Your task to perform on an android device: turn off location Image 0: 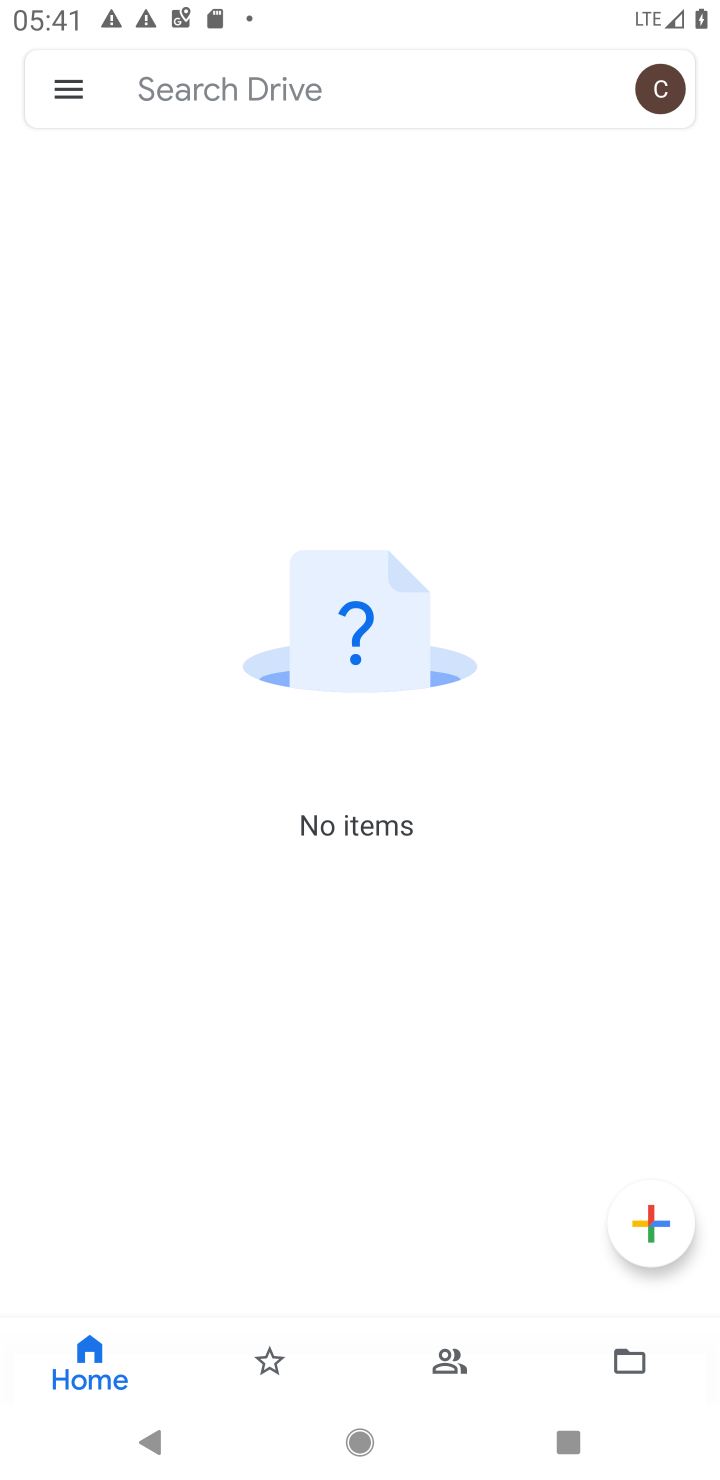
Step 0: press home button
Your task to perform on an android device: turn off location Image 1: 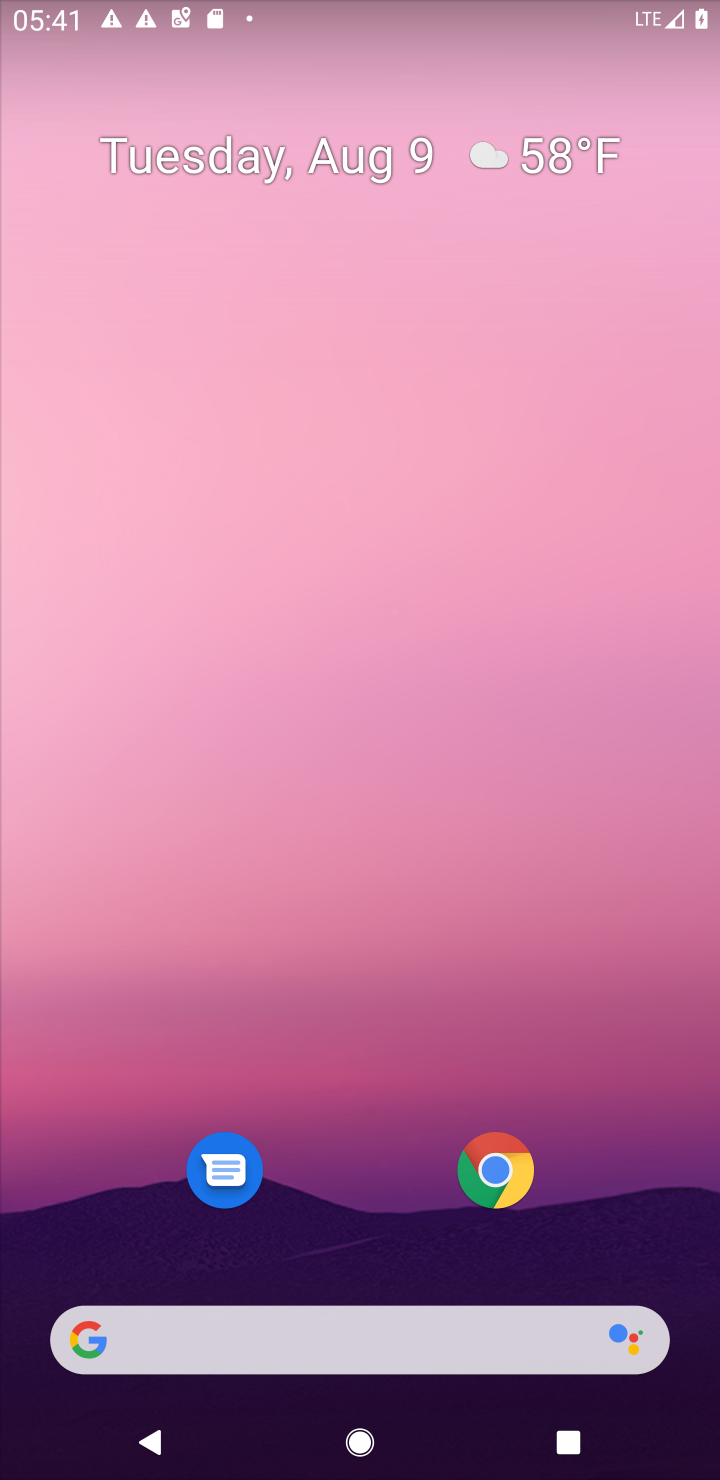
Step 1: drag from (406, 1165) to (577, 99)
Your task to perform on an android device: turn off location Image 2: 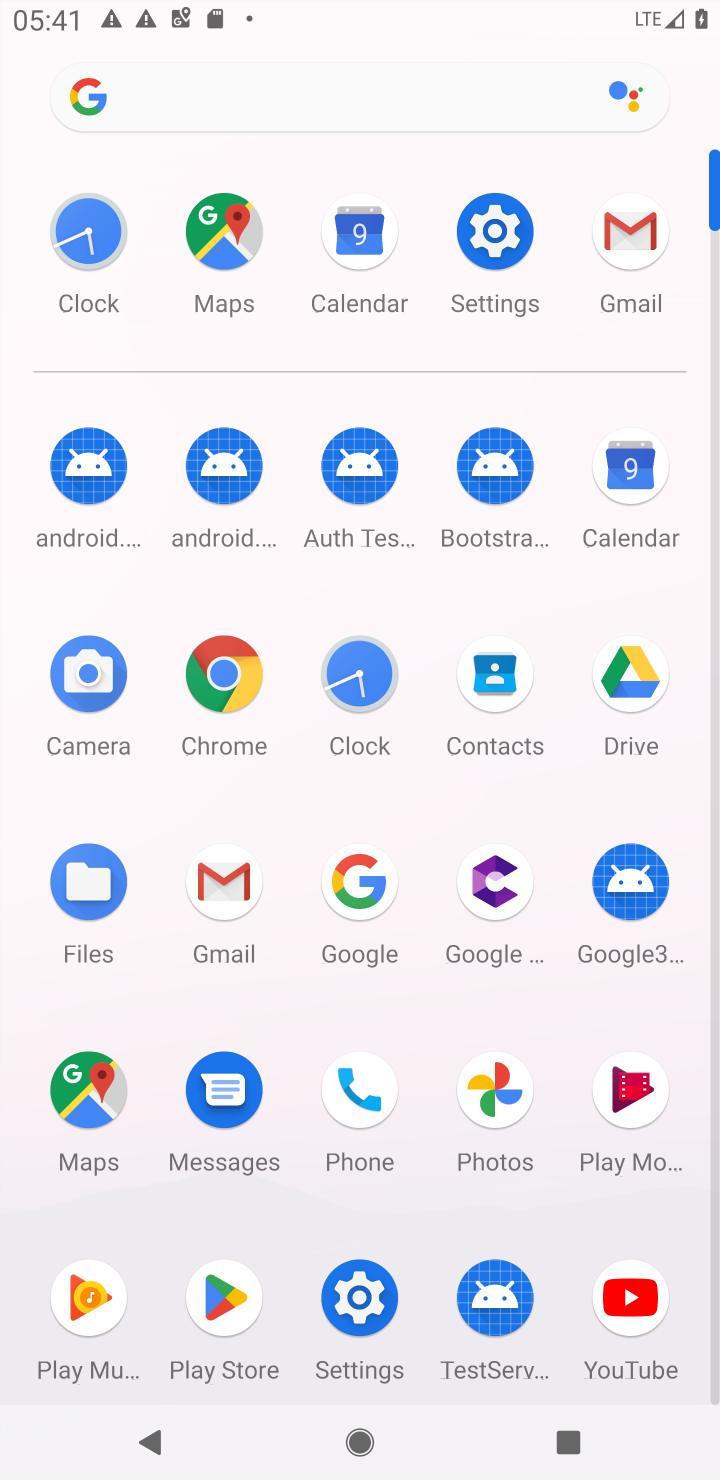
Step 2: click (349, 1322)
Your task to perform on an android device: turn off location Image 3: 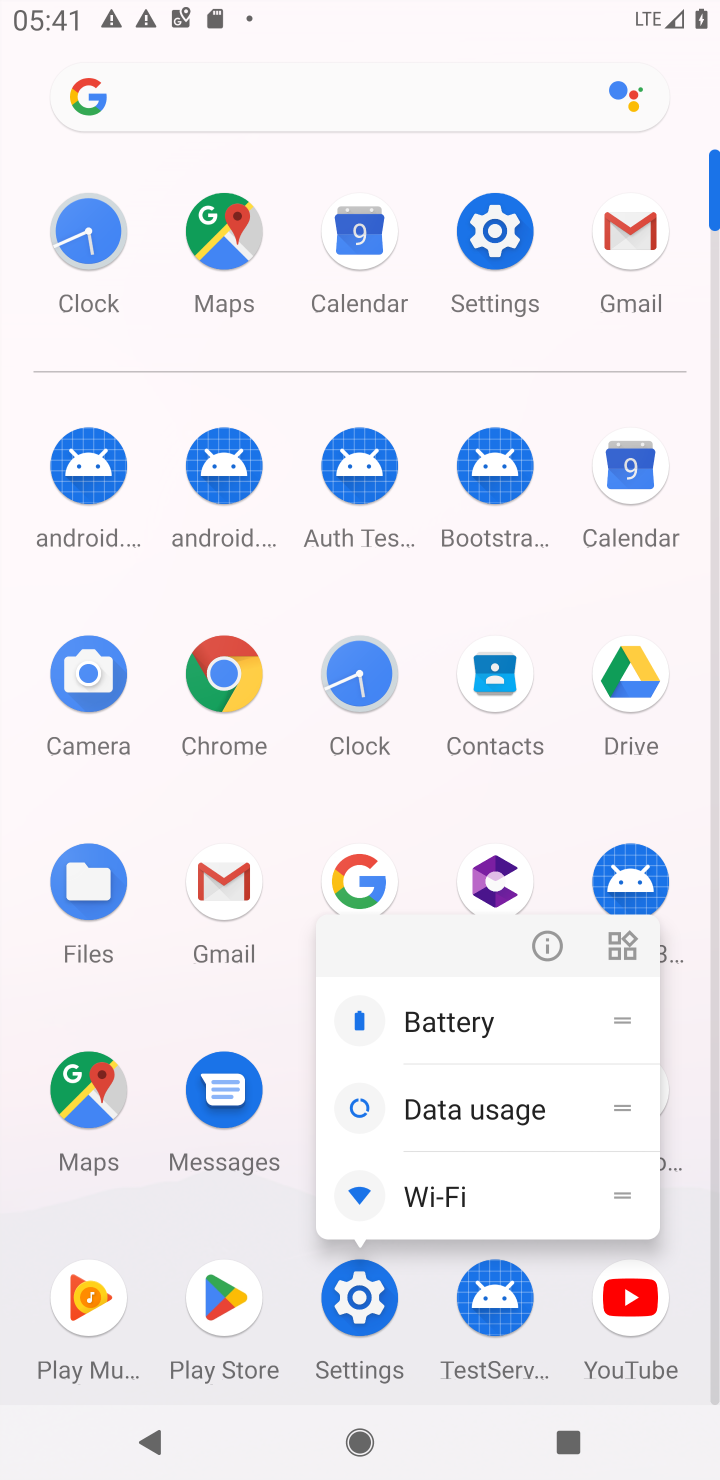
Step 3: click (349, 1322)
Your task to perform on an android device: turn off location Image 4: 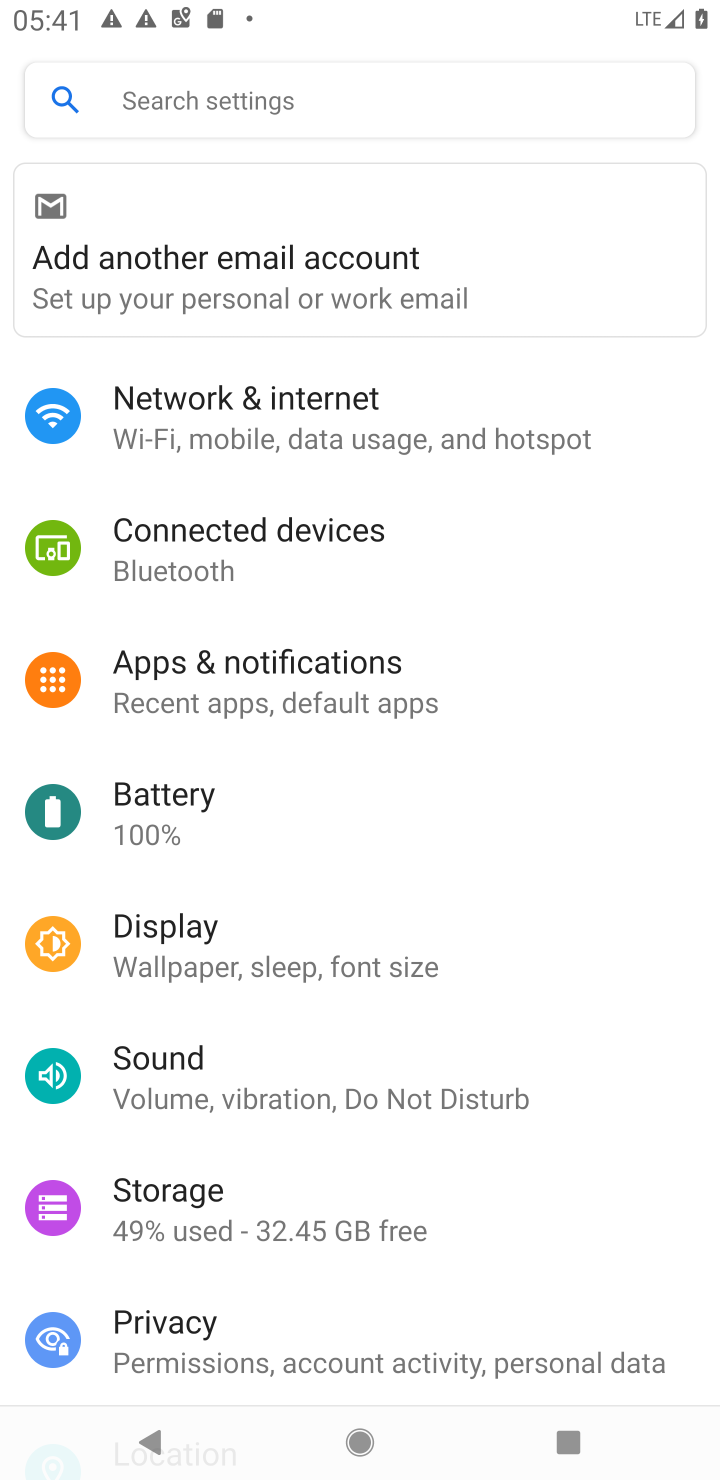
Step 4: drag from (524, 1249) to (621, 80)
Your task to perform on an android device: turn off location Image 5: 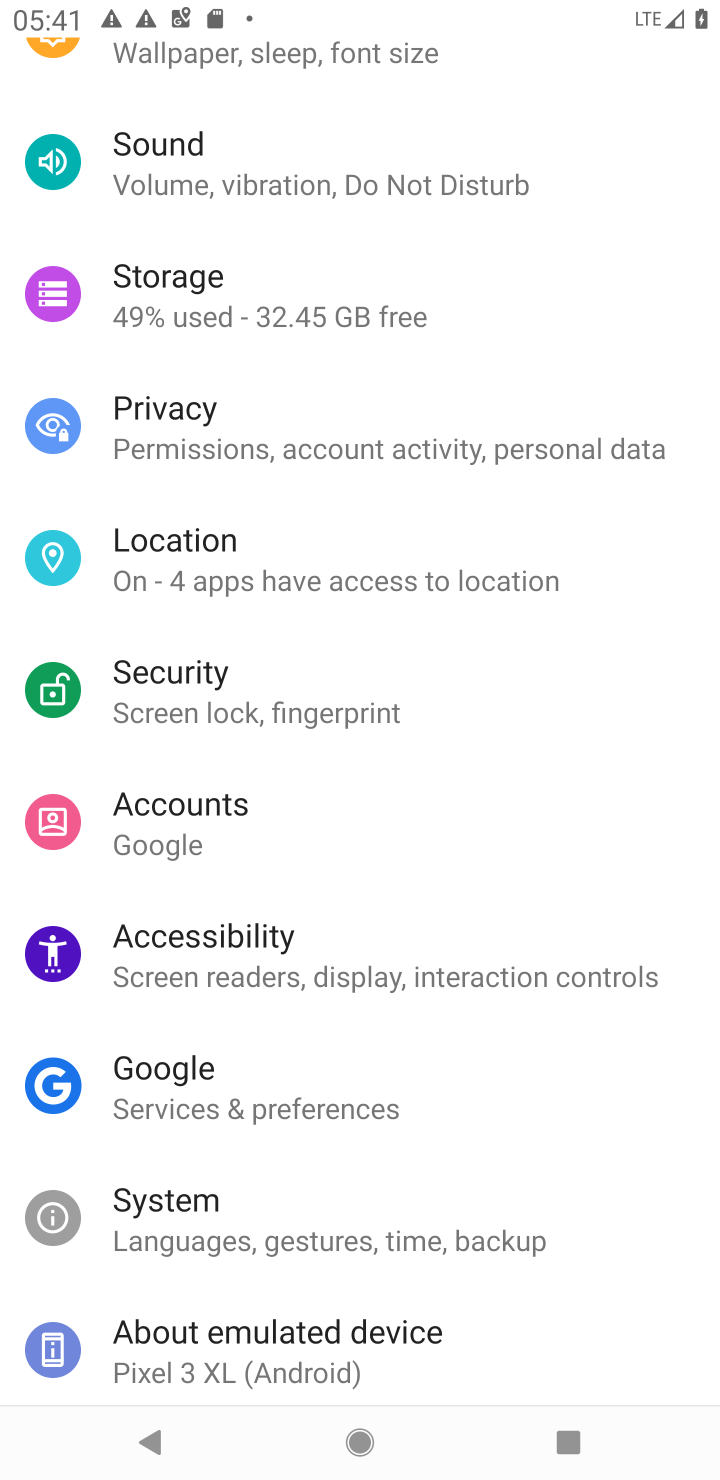
Step 5: click (143, 594)
Your task to perform on an android device: turn off location Image 6: 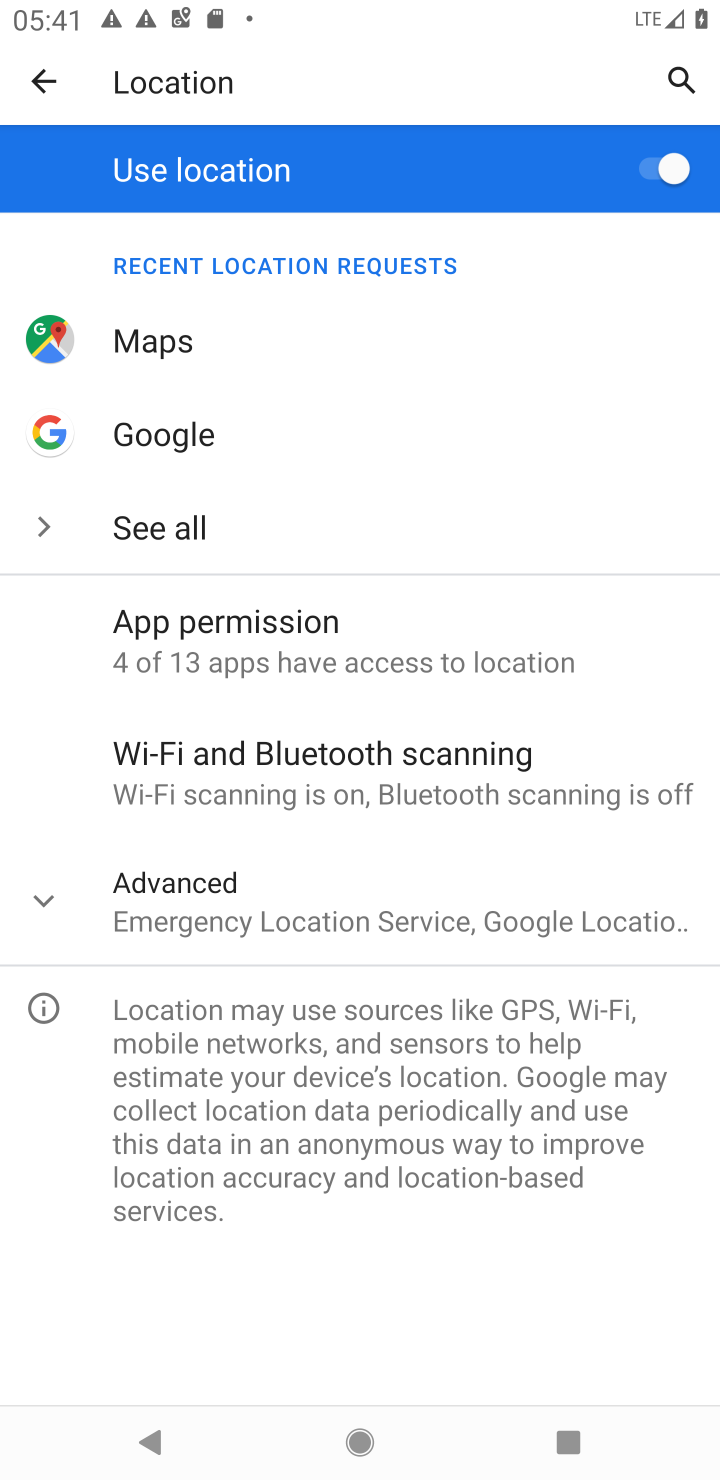
Step 6: click (202, 904)
Your task to perform on an android device: turn off location Image 7: 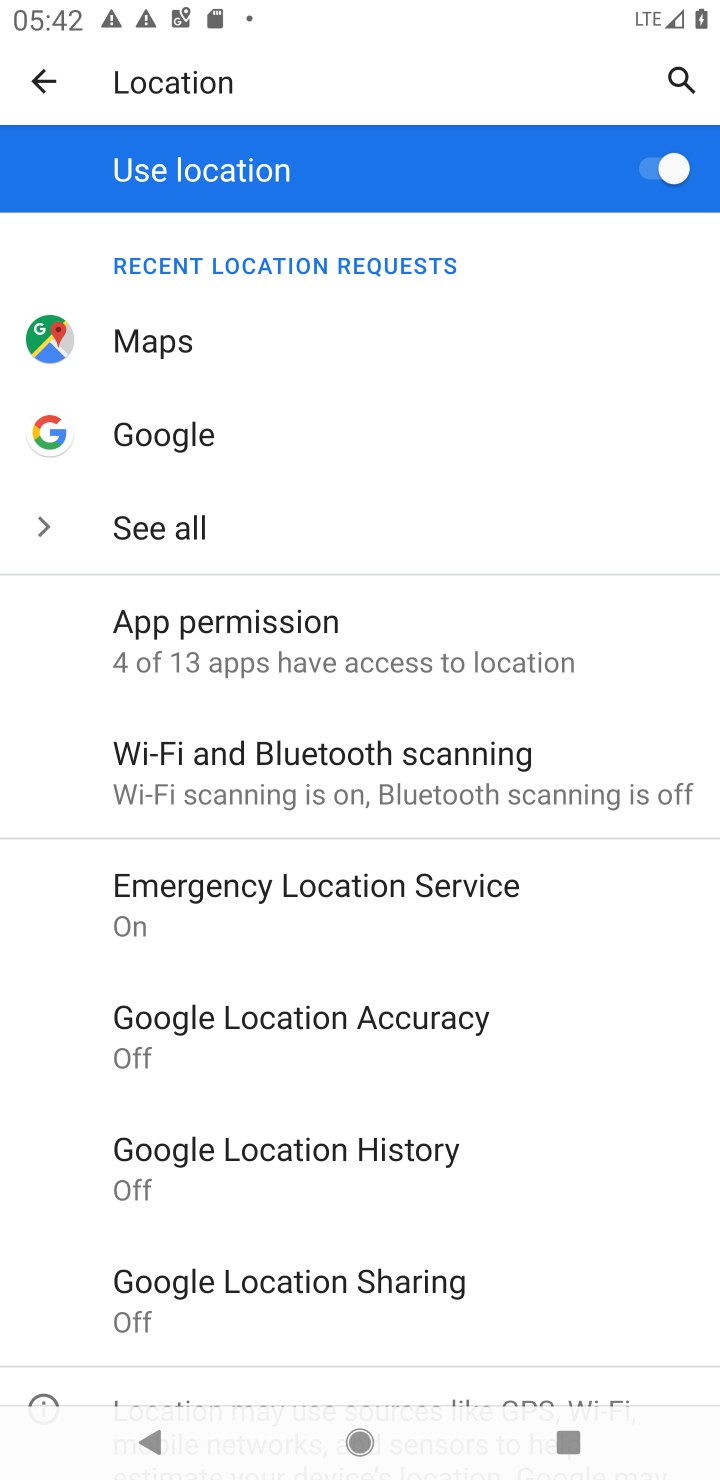
Step 7: drag from (634, 1090) to (585, 243)
Your task to perform on an android device: turn off location Image 8: 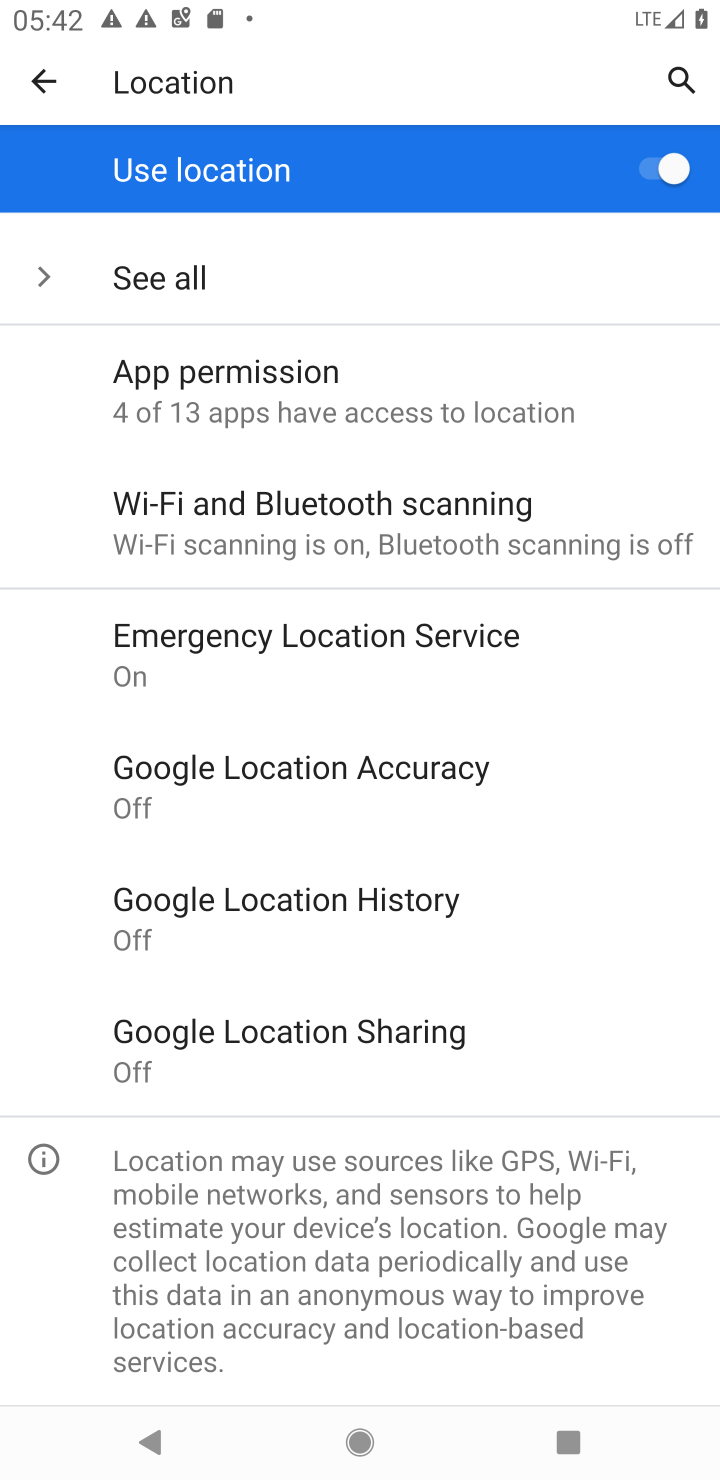
Step 8: click (675, 173)
Your task to perform on an android device: turn off location Image 9: 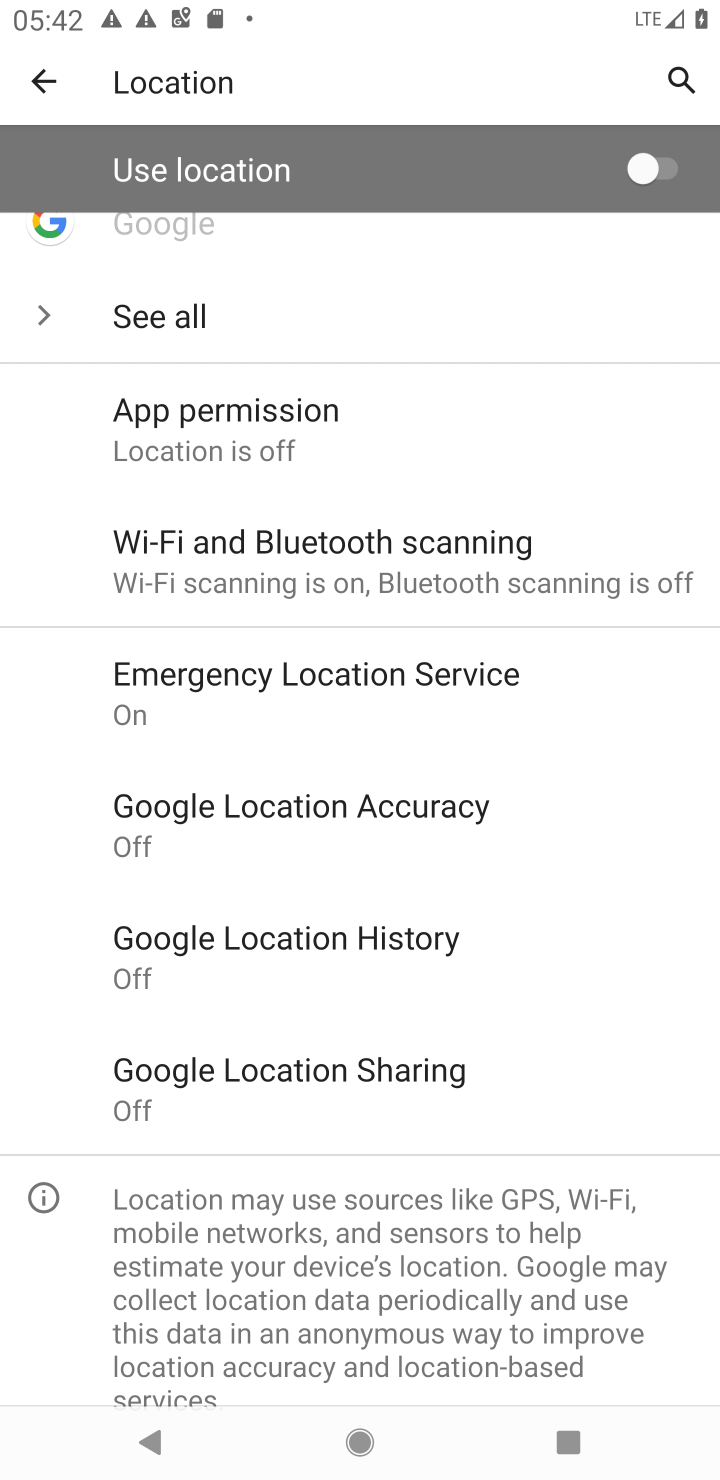
Step 9: task complete